Your task to perform on an android device: make emails show in primary in the gmail app Image 0: 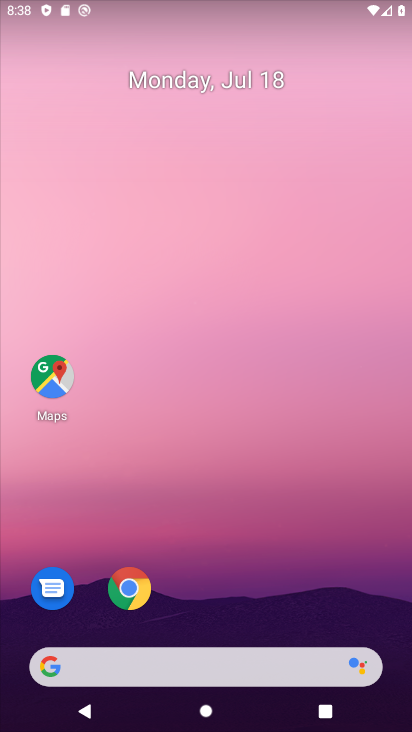
Step 0: drag from (324, 593) to (348, 43)
Your task to perform on an android device: make emails show in primary in the gmail app Image 1: 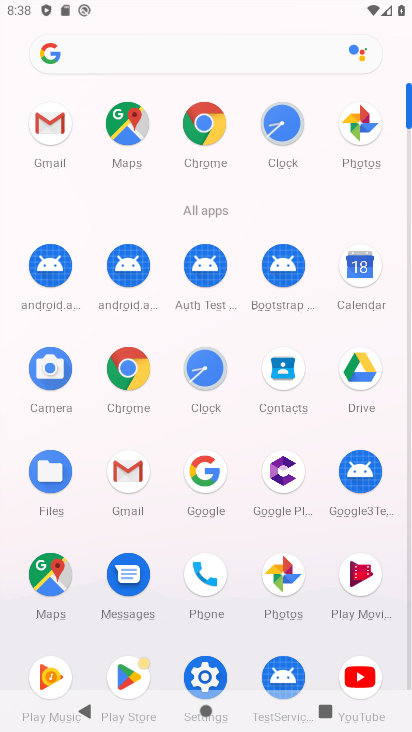
Step 1: click (128, 459)
Your task to perform on an android device: make emails show in primary in the gmail app Image 2: 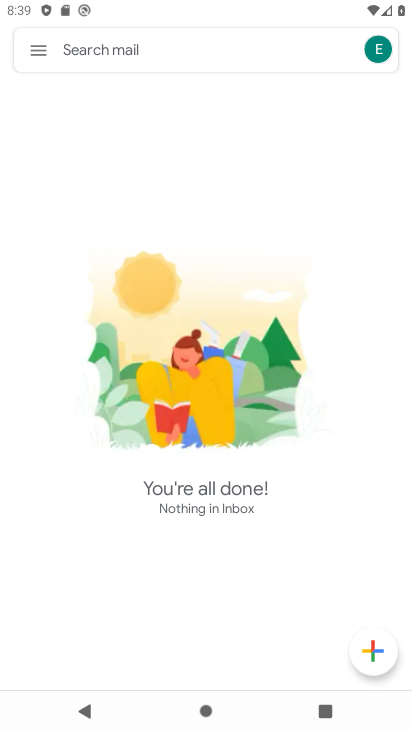
Step 2: click (46, 52)
Your task to perform on an android device: make emails show in primary in the gmail app Image 3: 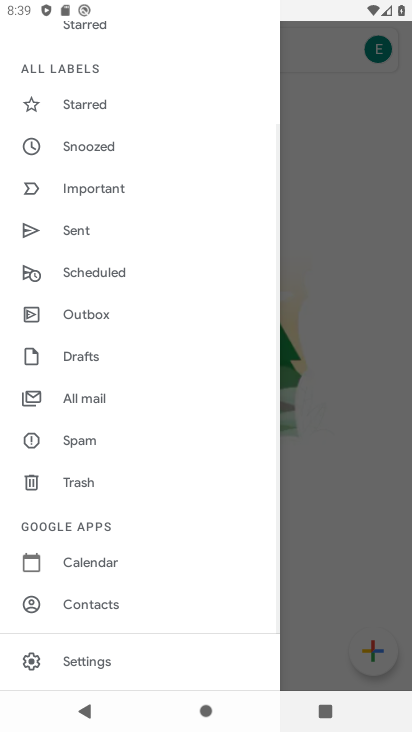
Step 3: drag from (126, 91) to (144, 552)
Your task to perform on an android device: make emails show in primary in the gmail app Image 4: 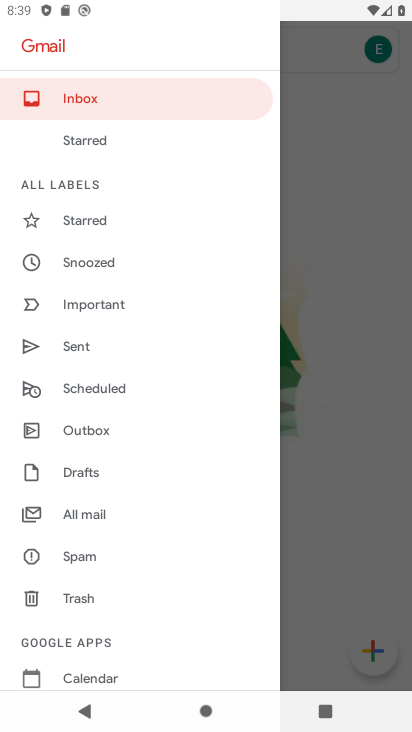
Step 4: click (328, 318)
Your task to perform on an android device: make emails show in primary in the gmail app Image 5: 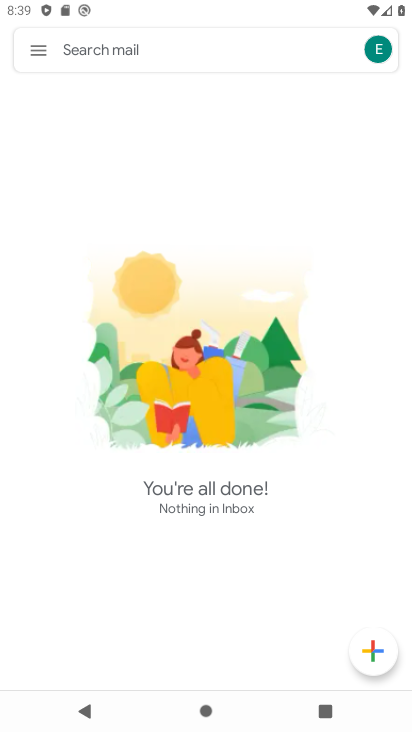
Step 5: task complete